Your task to perform on an android device: uninstall "Spotify" Image 0: 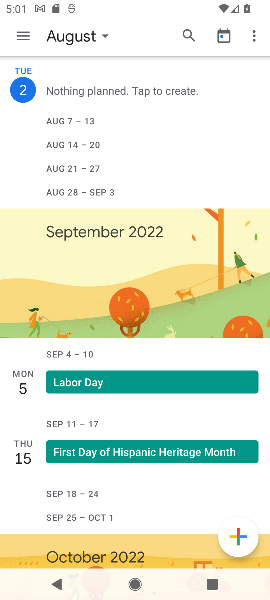
Step 0: press home button
Your task to perform on an android device: uninstall "Spotify" Image 1: 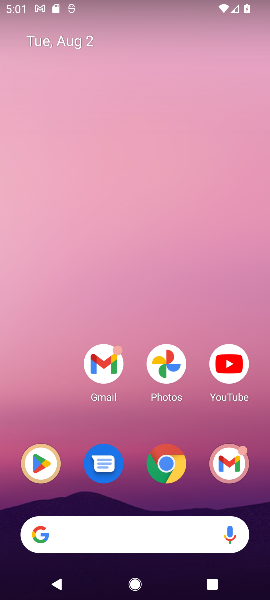
Step 1: click (42, 460)
Your task to perform on an android device: uninstall "Spotify" Image 2: 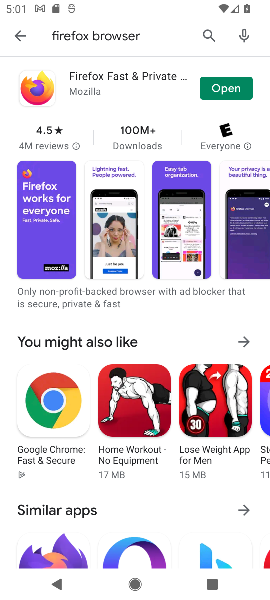
Step 2: click (204, 33)
Your task to perform on an android device: uninstall "Spotify" Image 3: 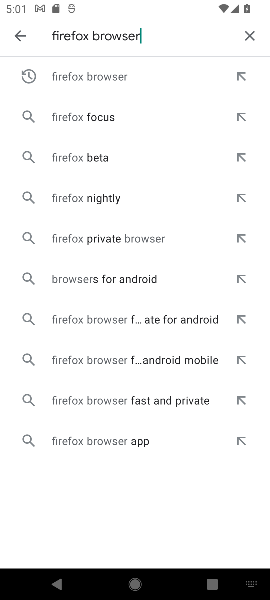
Step 3: click (249, 32)
Your task to perform on an android device: uninstall "Spotify" Image 4: 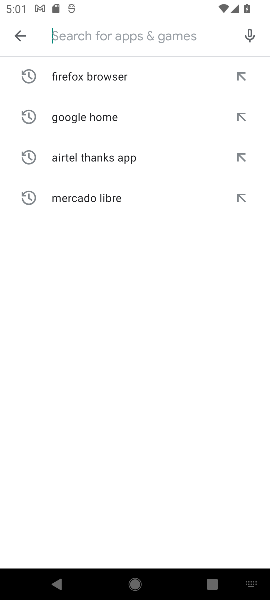
Step 4: type "Spotify"
Your task to perform on an android device: uninstall "Spotify" Image 5: 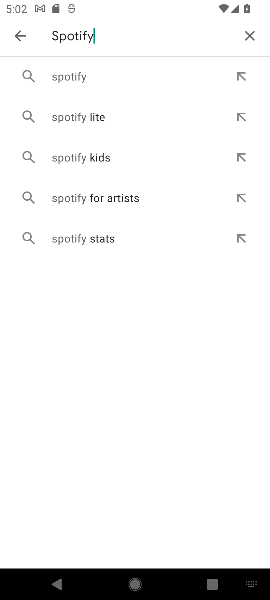
Step 5: click (75, 74)
Your task to perform on an android device: uninstall "Spotify" Image 6: 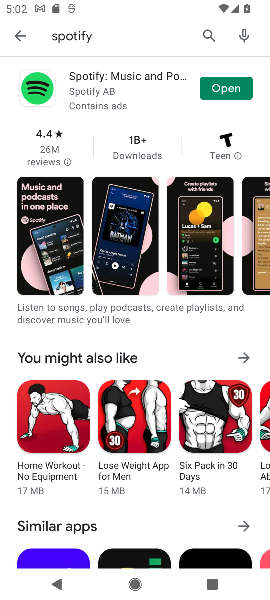
Step 6: click (70, 85)
Your task to perform on an android device: uninstall "Spotify" Image 7: 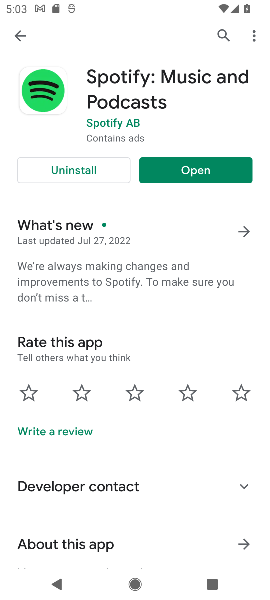
Step 7: click (67, 173)
Your task to perform on an android device: uninstall "Spotify" Image 8: 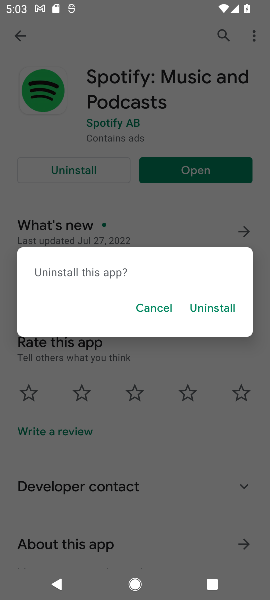
Step 8: click (204, 305)
Your task to perform on an android device: uninstall "Spotify" Image 9: 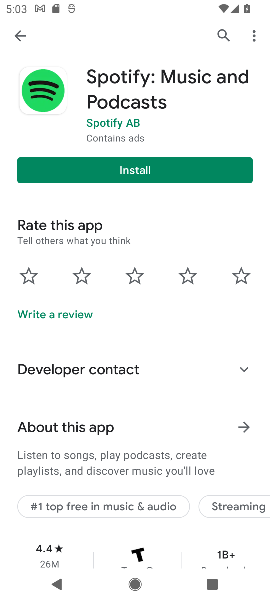
Step 9: task complete